Your task to perform on an android device: check storage Image 0: 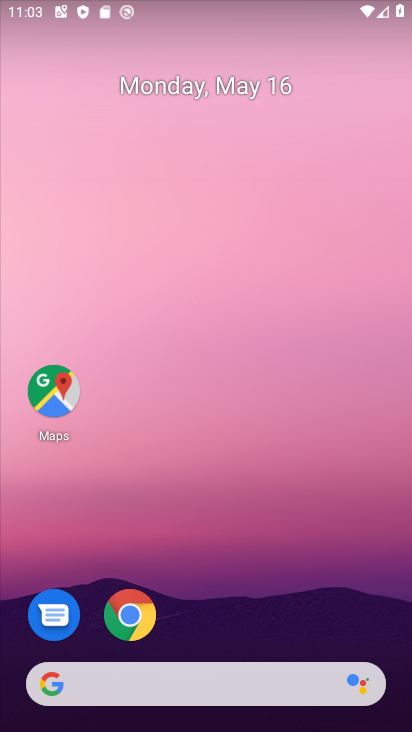
Step 0: drag from (200, 725) to (203, 56)
Your task to perform on an android device: check storage Image 1: 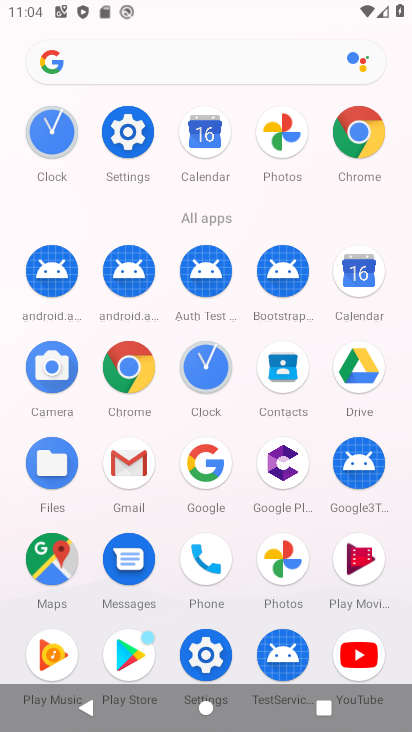
Step 1: click (137, 124)
Your task to perform on an android device: check storage Image 2: 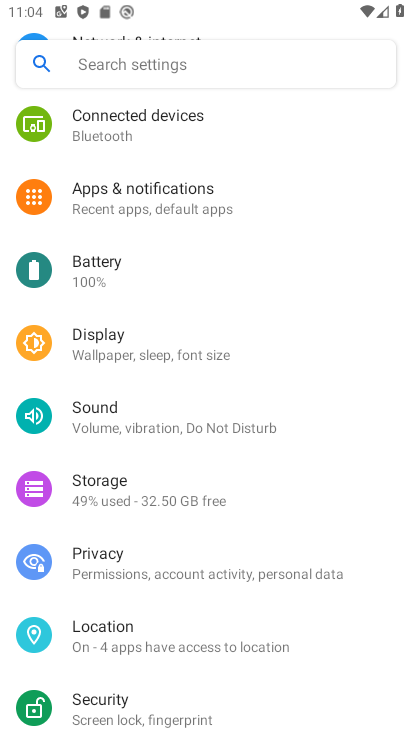
Step 2: click (99, 480)
Your task to perform on an android device: check storage Image 3: 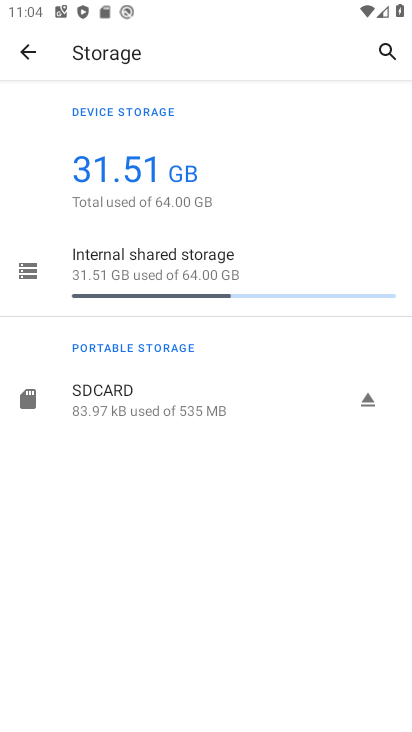
Step 3: task complete